Your task to perform on an android device: make emails show in primary in the gmail app Image 0: 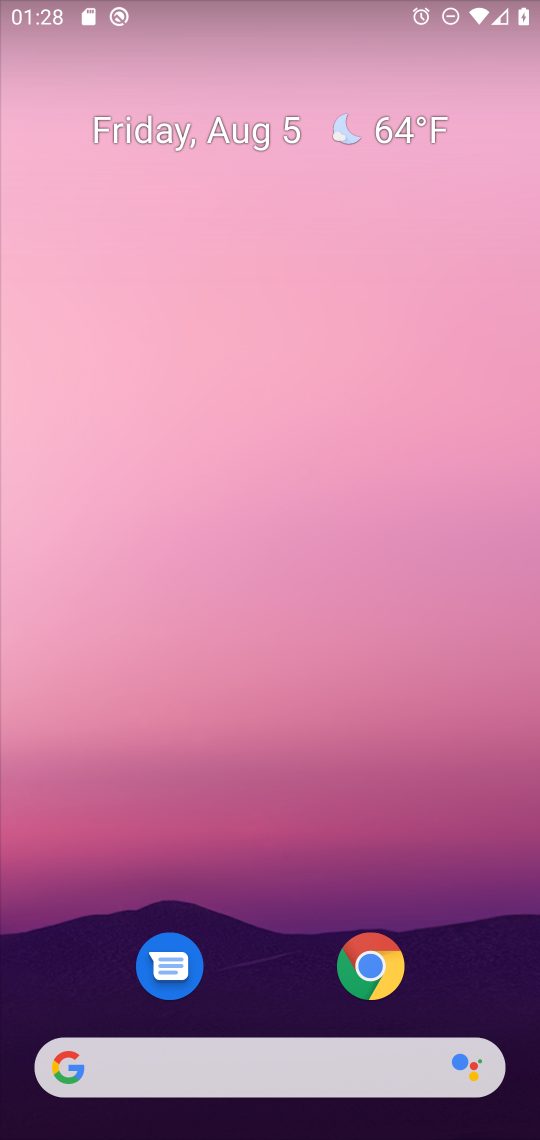
Step 0: drag from (243, 920) to (318, 56)
Your task to perform on an android device: make emails show in primary in the gmail app Image 1: 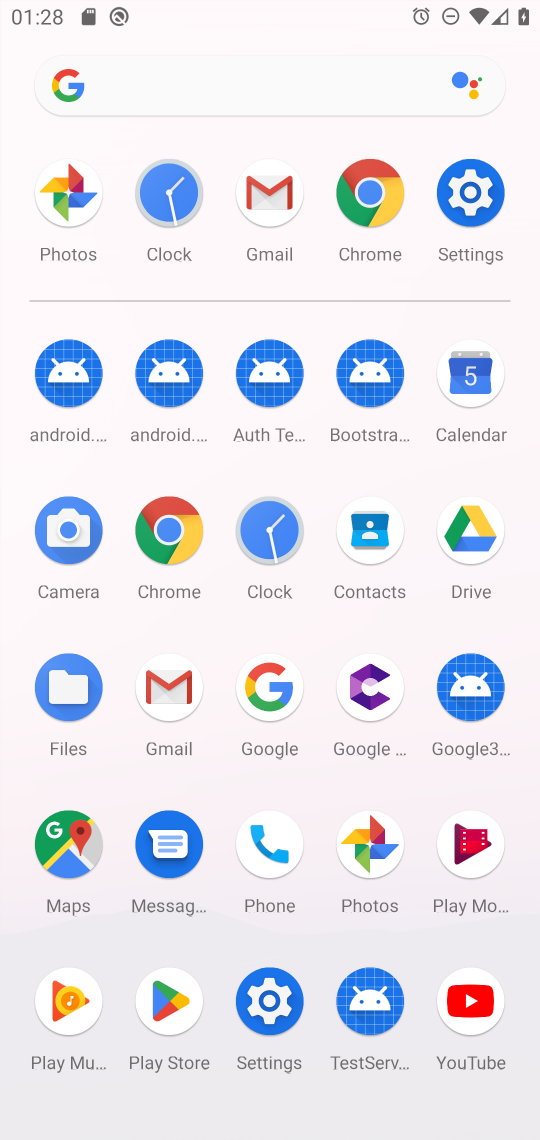
Step 1: click (265, 192)
Your task to perform on an android device: make emails show in primary in the gmail app Image 2: 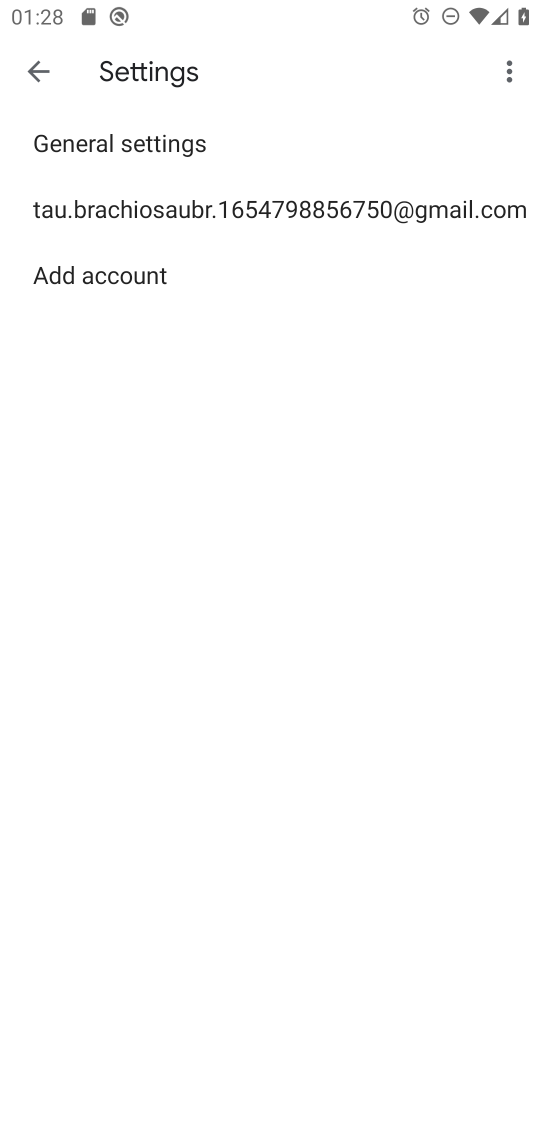
Step 2: click (265, 192)
Your task to perform on an android device: make emails show in primary in the gmail app Image 3: 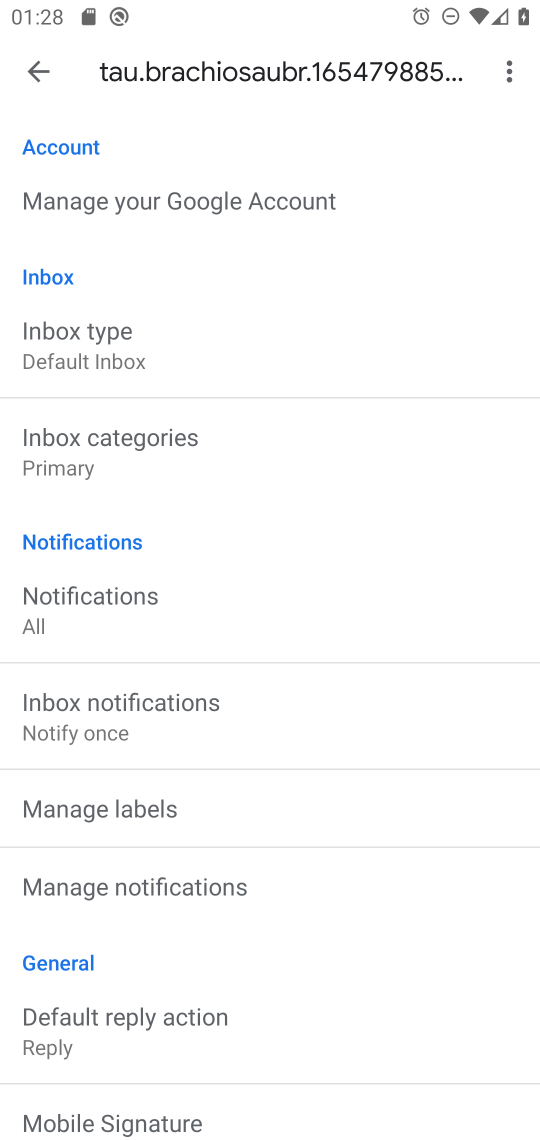
Step 3: task complete